Your task to perform on an android device: change the clock display to show seconds Image 0: 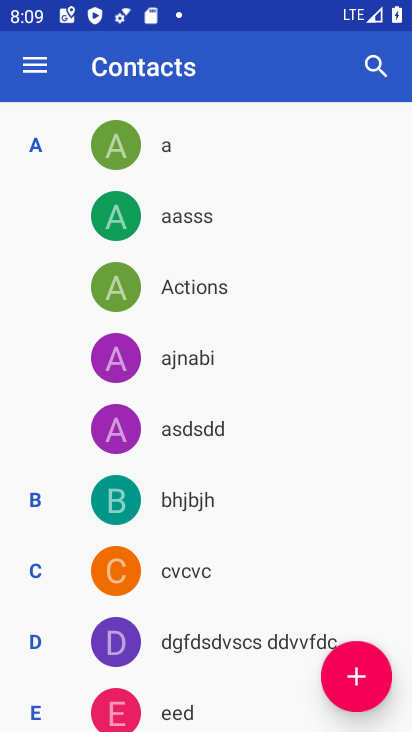
Step 0: press home button
Your task to perform on an android device: change the clock display to show seconds Image 1: 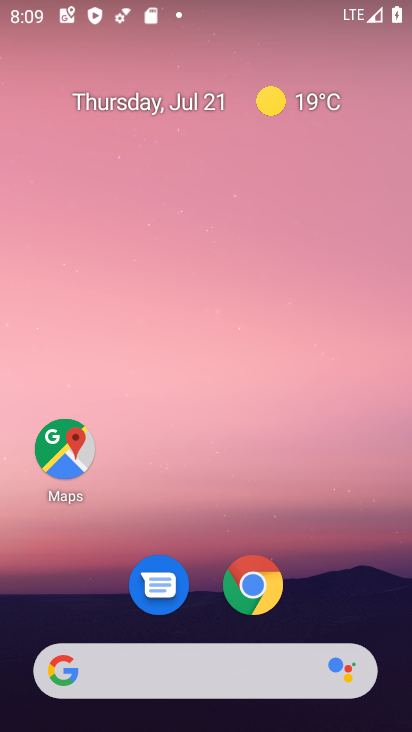
Step 1: drag from (309, 563) to (334, 39)
Your task to perform on an android device: change the clock display to show seconds Image 2: 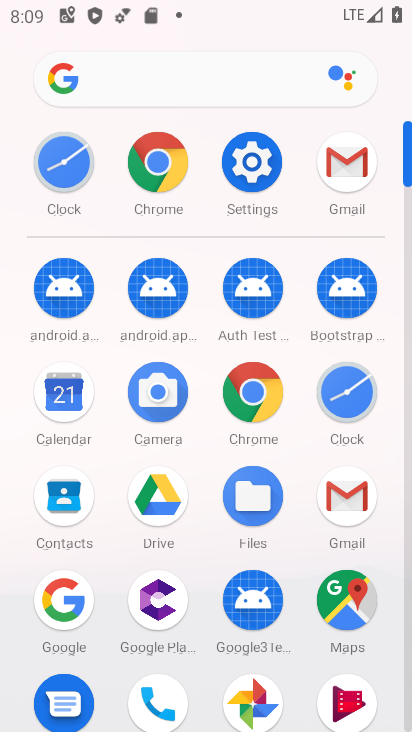
Step 2: click (343, 390)
Your task to perform on an android device: change the clock display to show seconds Image 3: 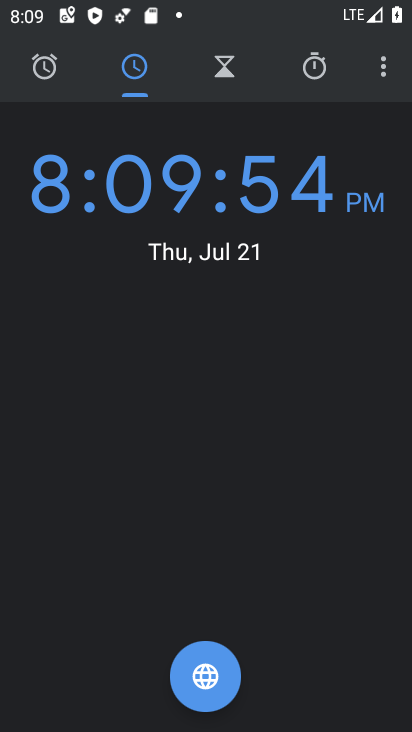
Step 3: task complete